Your task to perform on an android device: Open Chrome and go to settings Image 0: 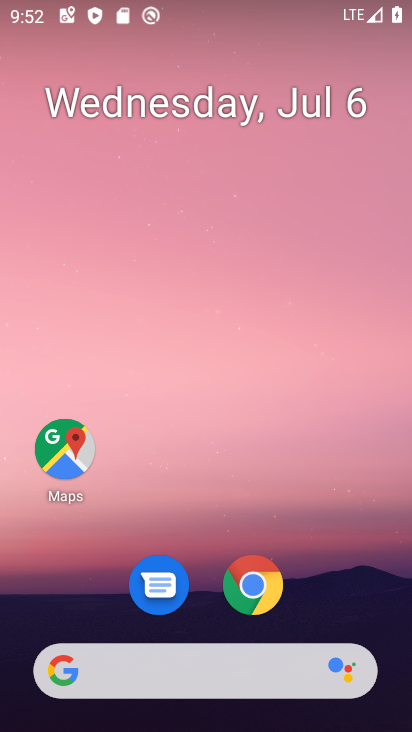
Step 0: click (254, 589)
Your task to perform on an android device: Open Chrome and go to settings Image 1: 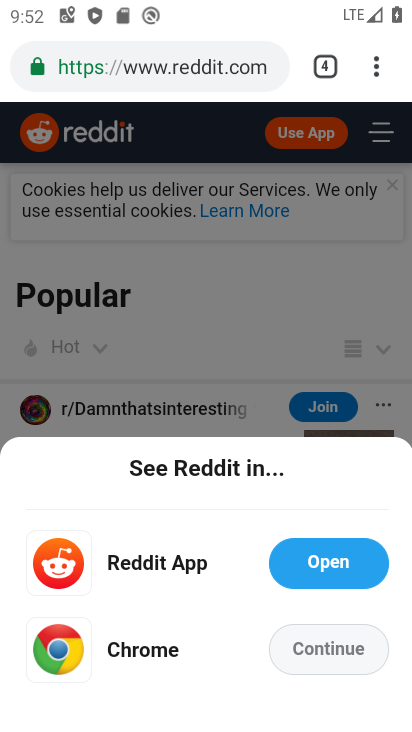
Step 1: click (373, 64)
Your task to perform on an android device: Open Chrome and go to settings Image 2: 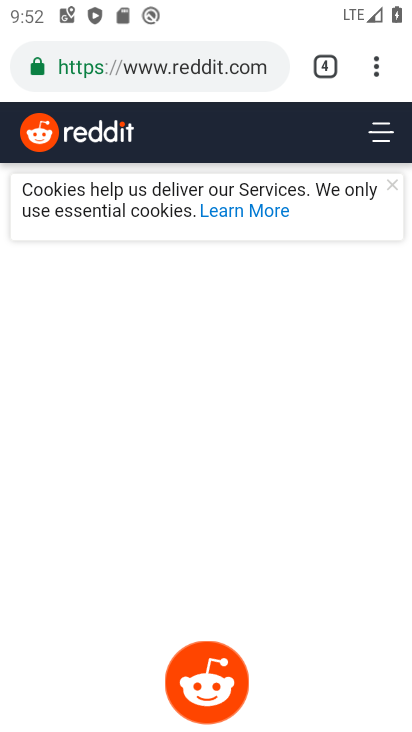
Step 2: click (376, 65)
Your task to perform on an android device: Open Chrome and go to settings Image 3: 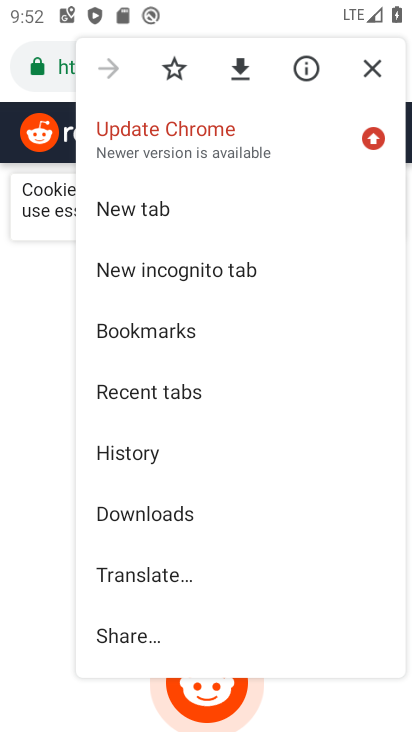
Step 3: drag from (237, 488) to (275, 94)
Your task to perform on an android device: Open Chrome and go to settings Image 4: 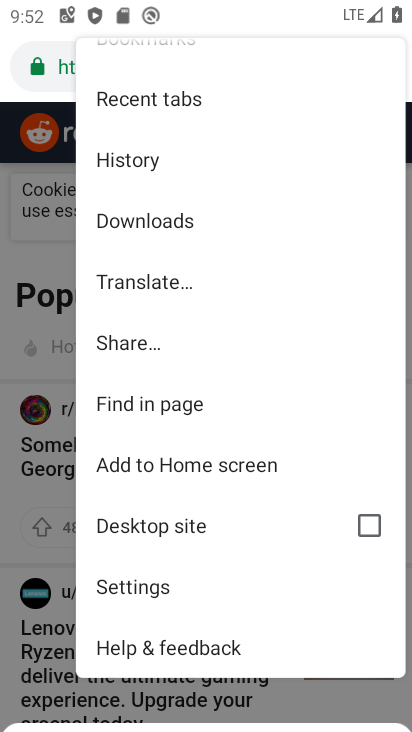
Step 4: click (182, 584)
Your task to perform on an android device: Open Chrome and go to settings Image 5: 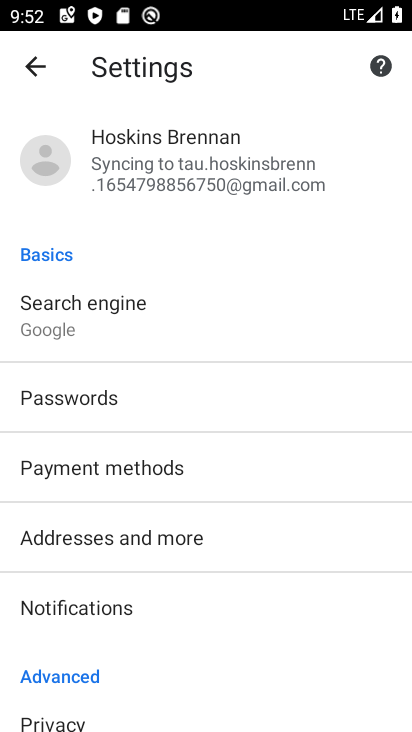
Step 5: task complete